Your task to perform on an android device: Open battery settings Image 0: 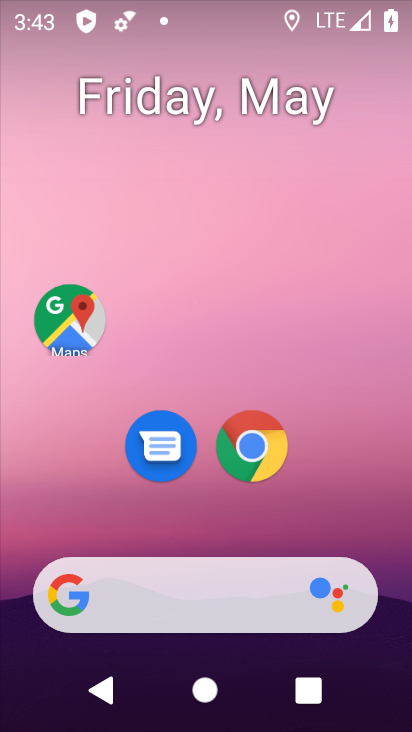
Step 0: drag from (356, 513) to (405, 99)
Your task to perform on an android device: Open battery settings Image 1: 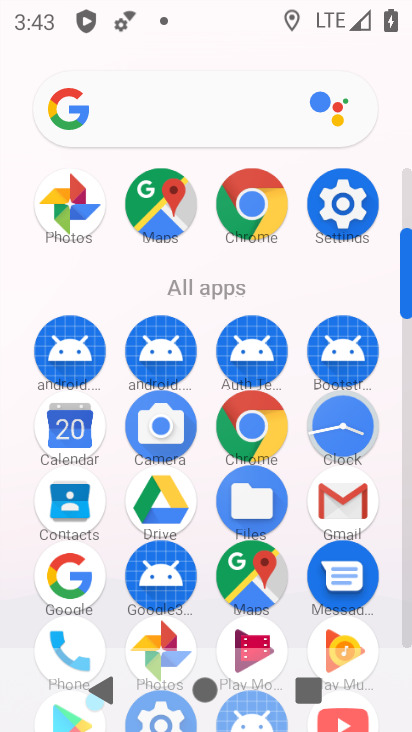
Step 1: click (350, 200)
Your task to perform on an android device: Open battery settings Image 2: 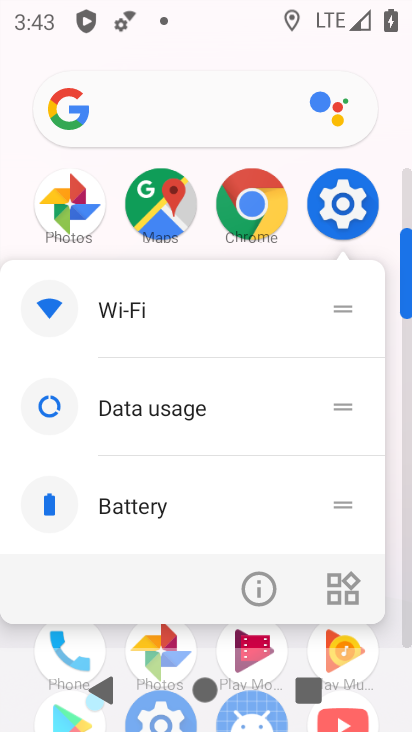
Step 2: click (350, 200)
Your task to perform on an android device: Open battery settings Image 3: 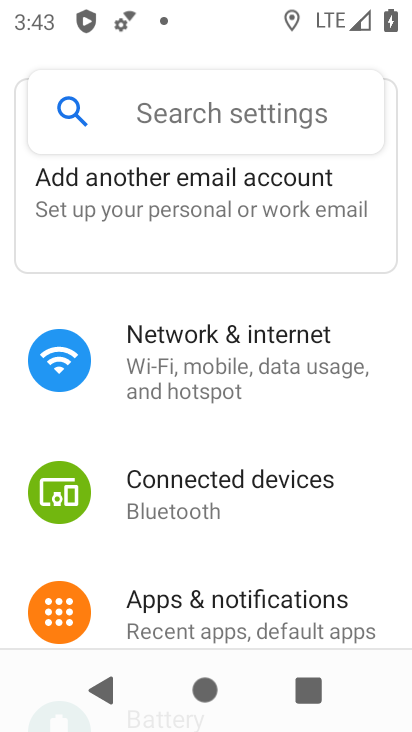
Step 3: drag from (217, 599) to (293, 288)
Your task to perform on an android device: Open battery settings Image 4: 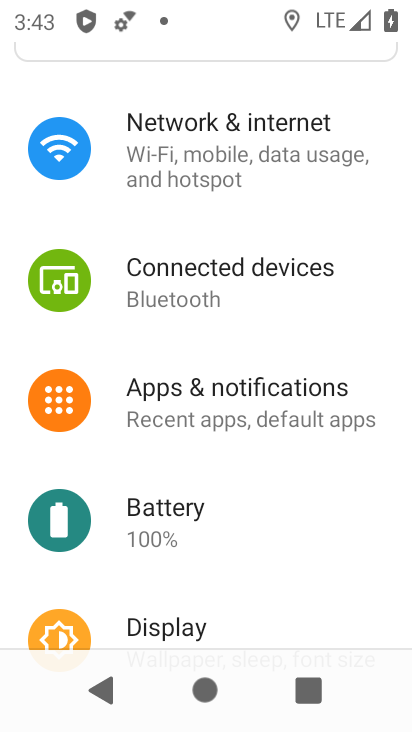
Step 4: click (167, 520)
Your task to perform on an android device: Open battery settings Image 5: 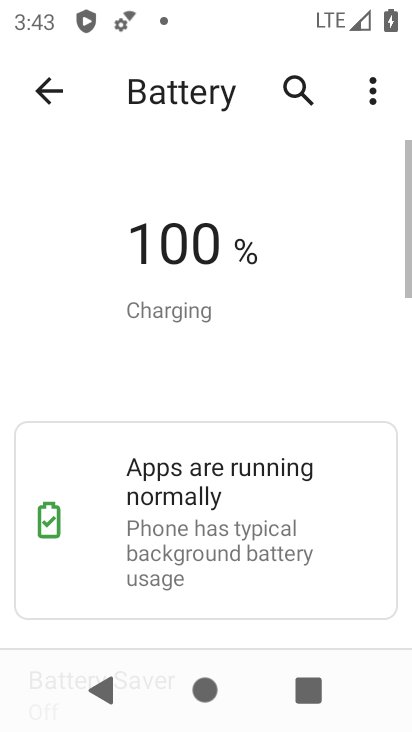
Step 5: task complete